Your task to perform on an android device: Go to privacy settings Image 0: 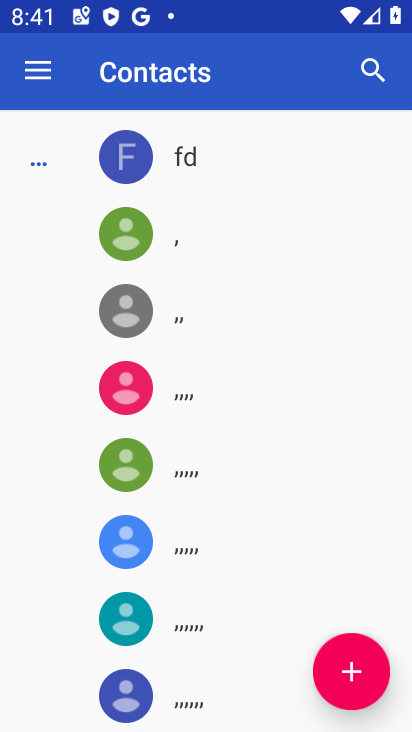
Step 0: press home button
Your task to perform on an android device: Go to privacy settings Image 1: 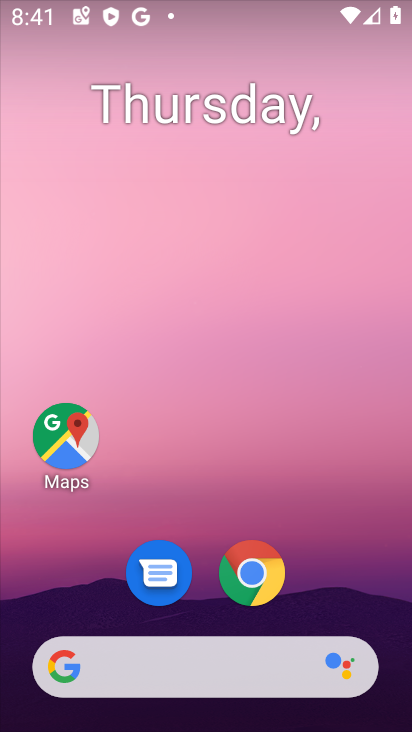
Step 1: drag from (356, 574) to (362, 151)
Your task to perform on an android device: Go to privacy settings Image 2: 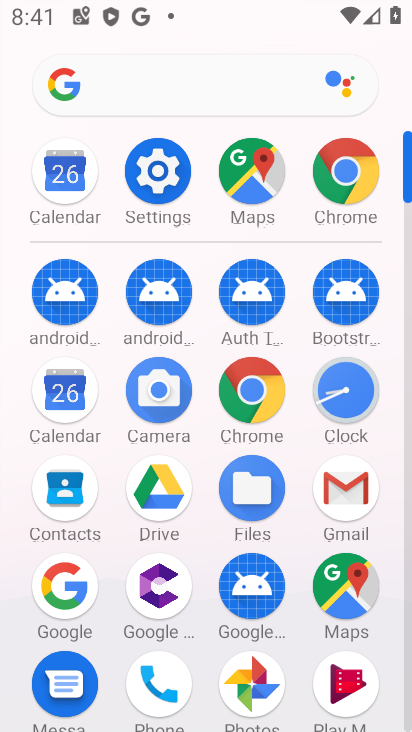
Step 2: click (157, 194)
Your task to perform on an android device: Go to privacy settings Image 3: 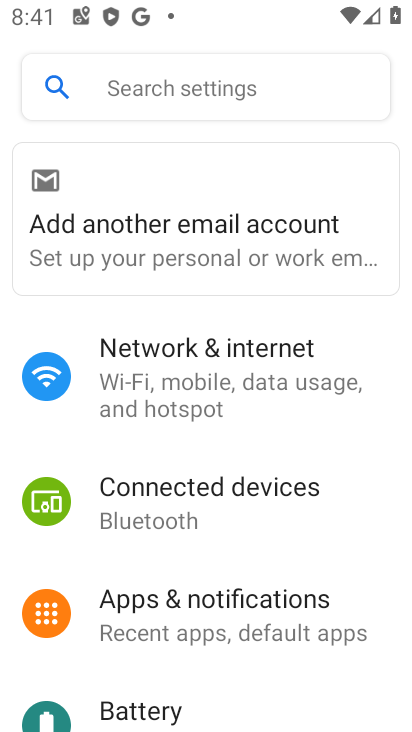
Step 3: drag from (197, 686) to (278, 314)
Your task to perform on an android device: Go to privacy settings Image 4: 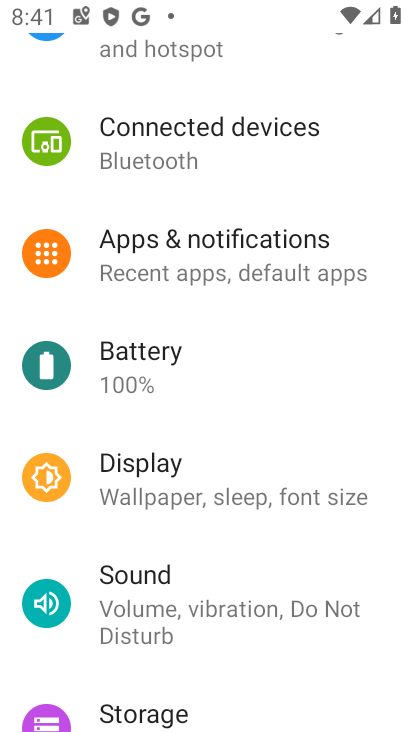
Step 4: drag from (270, 673) to (296, 374)
Your task to perform on an android device: Go to privacy settings Image 5: 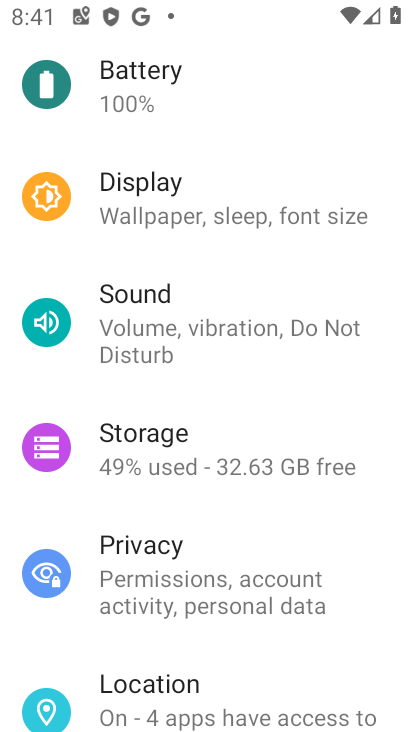
Step 5: click (234, 570)
Your task to perform on an android device: Go to privacy settings Image 6: 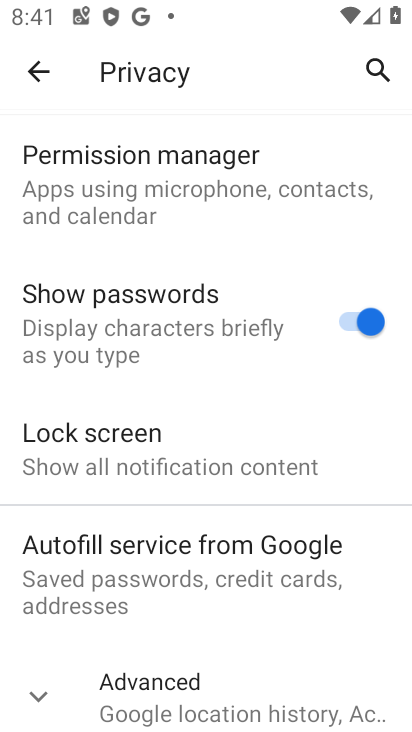
Step 6: task complete